Your task to perform on an android device: Go to Reddit.com Image 0: 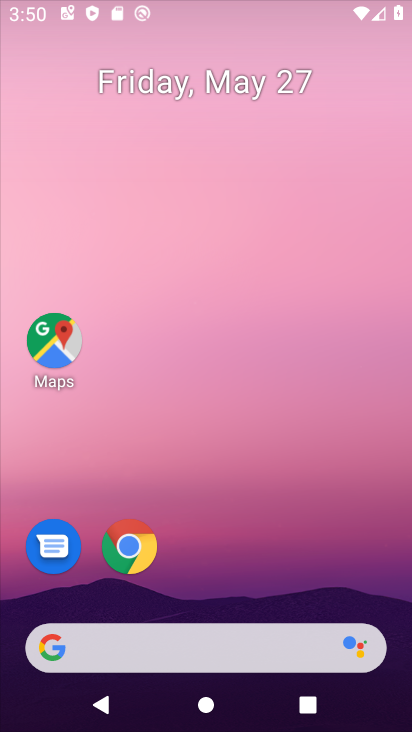
Step 0: press home button
Your task to perform on an android device: Go to Reddit.com Image 1: 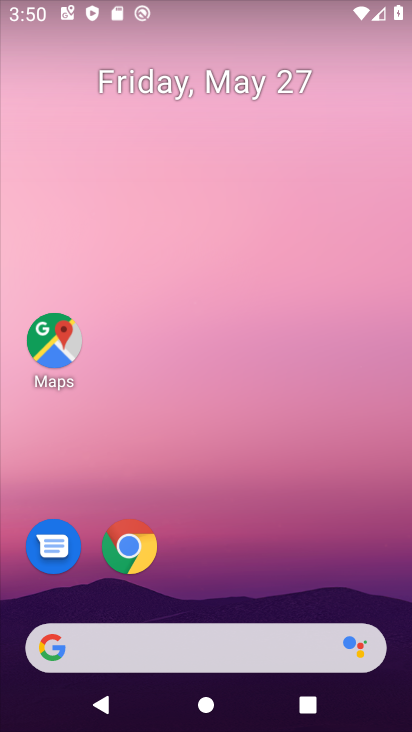
Step 1: click (121, 533)
Your task to perform on an android device: Go to Reddit.com Image 2: 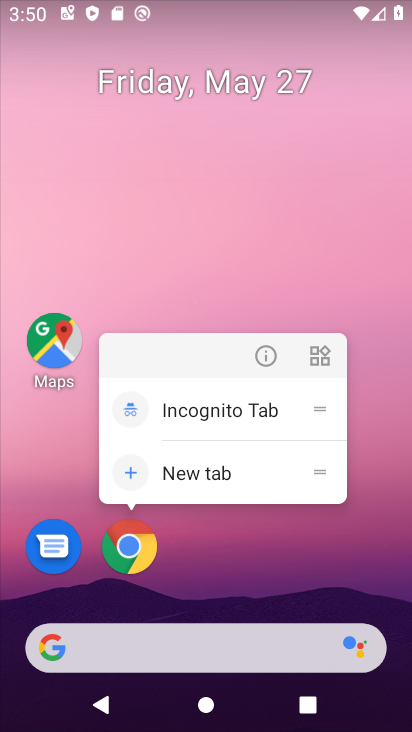
Step 2: click (125, 537)
Your task to perform on an android device: Go to Reddit.com Image 3: 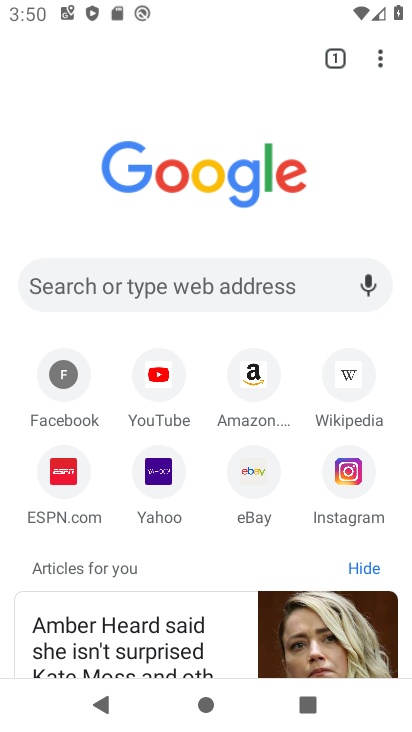
Step 3: click (165, 279)
Your task to perform on an android device: Go to Reddit.com Image 4: 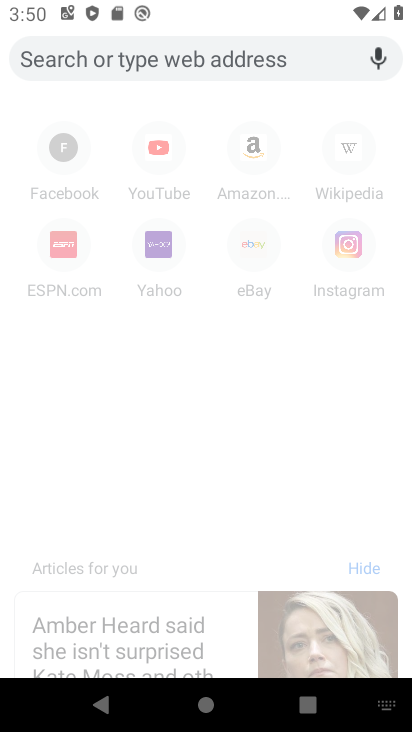
Step 4: type "reddit"
Your task to perform on an android device: Go to Reddit.com Image 5: 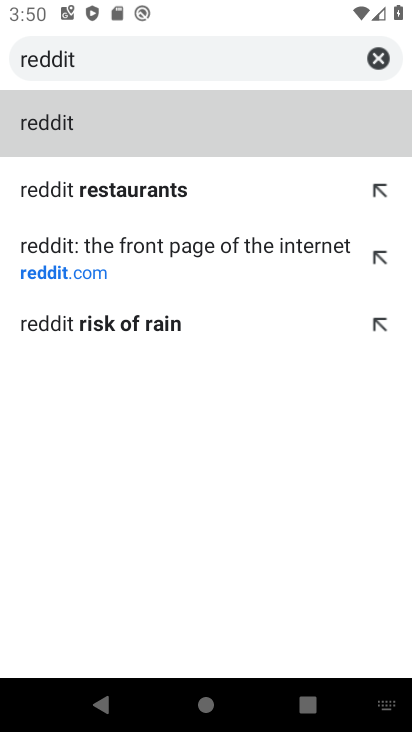
Step 5: click (113, 271)
Your task to perform on an android device: Go to Reddit.com Image 6: 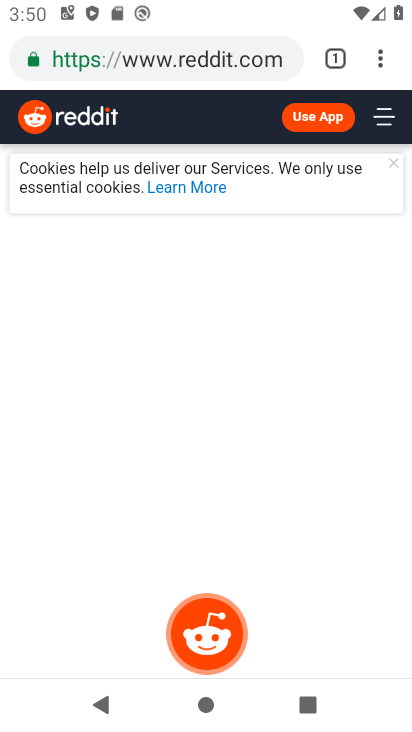
Step 6: drag from (279, 563) to (300, 167)
Your task to perform on an android device: Go to Reddit.com Image 7: 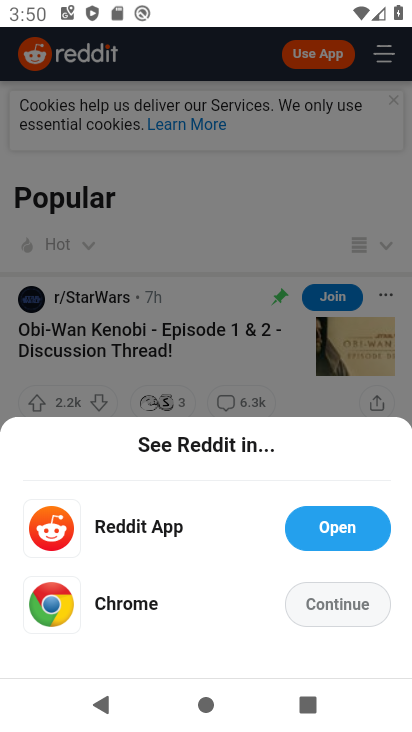
Step 7: click (352, 596)
Your task to perform on an android device: Go to Reddit.com Image 8: 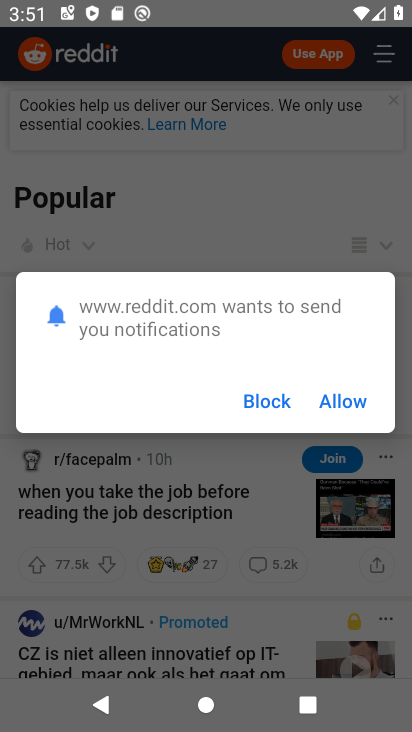
Step 8: click (349, 403)
Your task to perform on an android device: Go to Reddit.com Image 9: 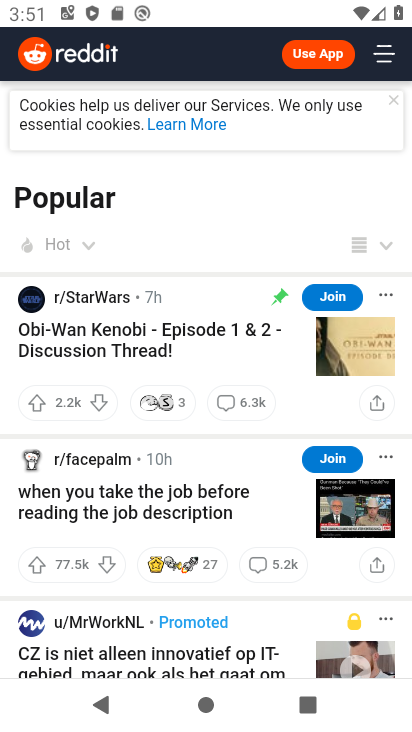
Step 9: task complete